Your task to perform on an android device: Show me popular videos on Youtube Image 0: 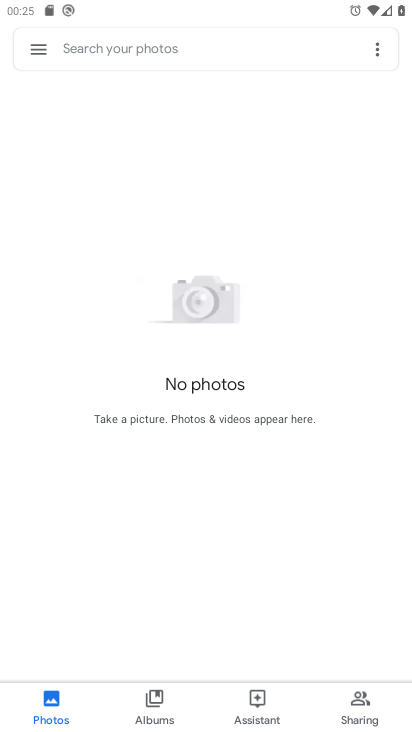
Step 0: press home button
Your task to perform on an android device: Show me popular videos on Youtube Image 1: 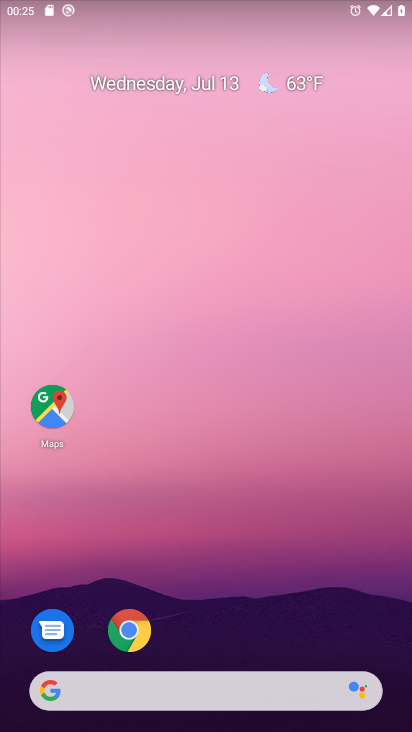
Step 1: drag from (203, 678) to (193, 277)
Your task to perform on an android device: Show me popular videos on Youtube Image 2: 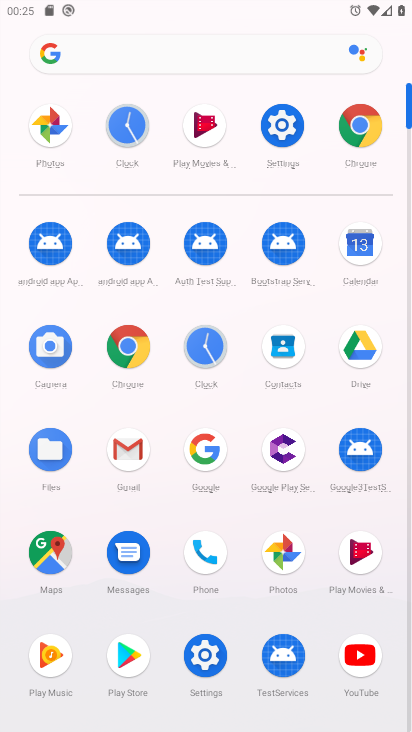
Step 2: click (353, 657)
Your task to perform on an android device: Show me popular videos on Youtube Image 3: 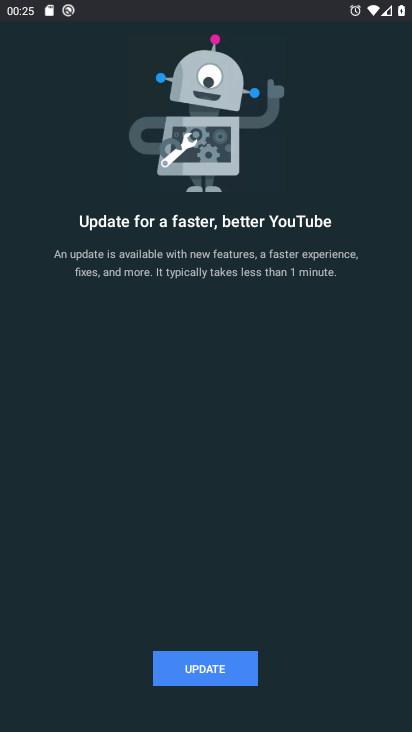
Step 3: click (216, 670)
Your task to perform on an android device: Show me popular videos on Youtube Image 4: 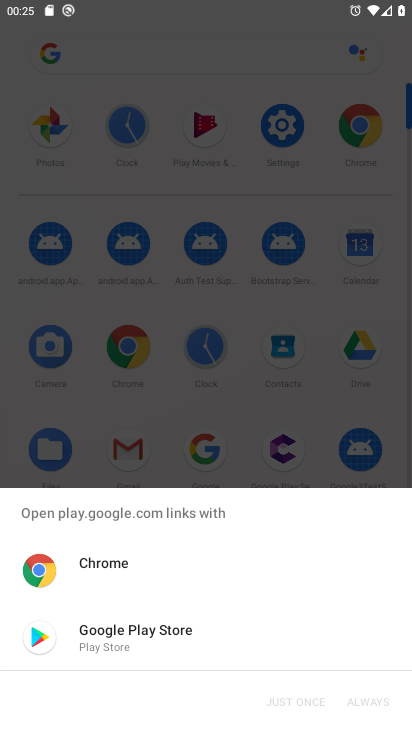
Step 4: click (218, 647)
Your task to perform on an android device: Show me popular videos on Youtube Image 5: 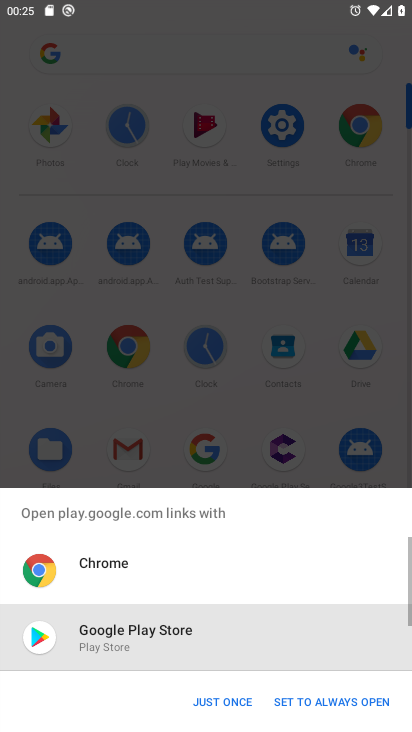
Step 5: click (232, 705)
Your task to perform on an android device: Show me popular videos on Youtube Image 6: 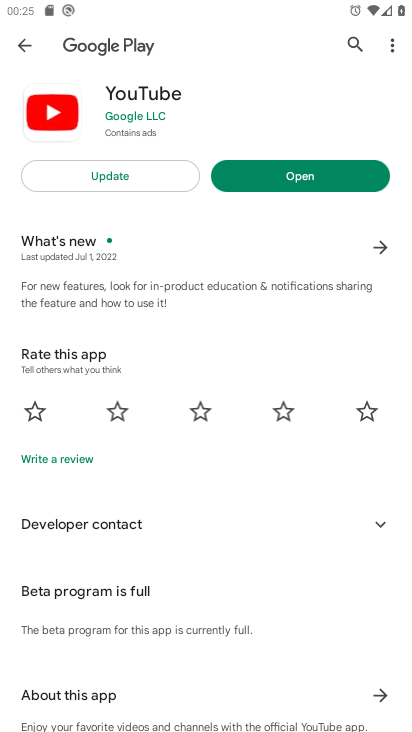
Step 6: click (149, 168)
Your task to perform on an android device: Show me popular videos on Youtube Image 7: 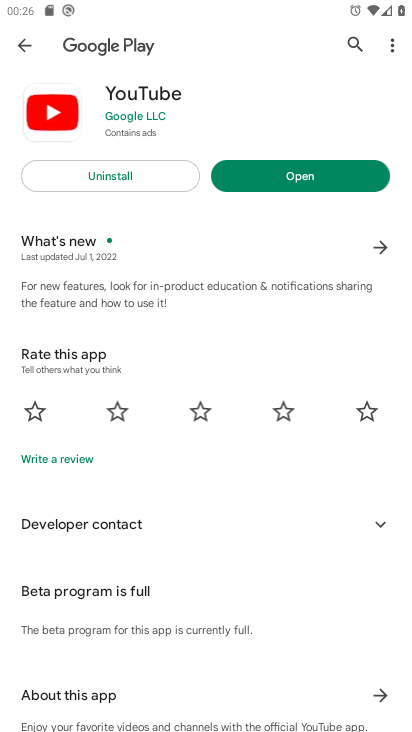
Step 7: click (279, 170)
Your task to perform on an android device: Show me popular videos on Youtube Image 8: 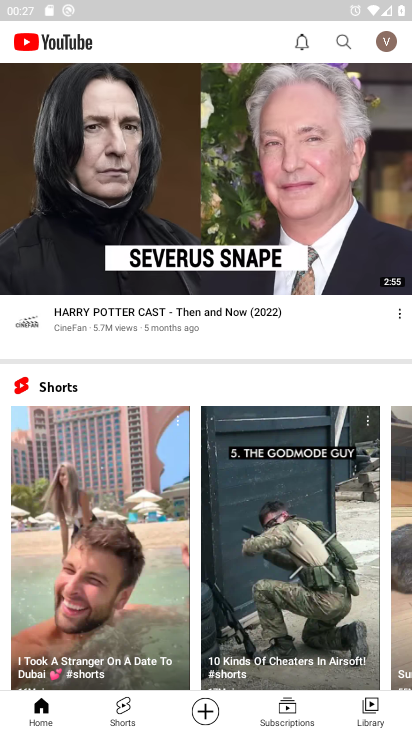
Step 8: drag from (130, 172) to (138, 419)
Your task to perform on an android device: Show me popular videos on Youtube Image 9: 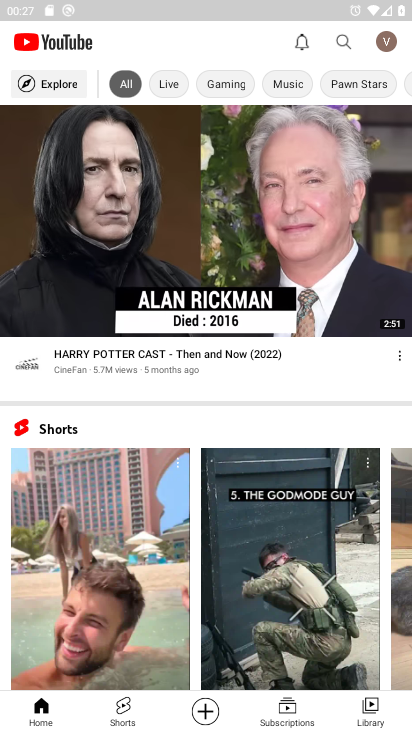
Step 9: click (52, 86)
Your task to perform on an android device: Show me popular videos on Youtube Image 10: 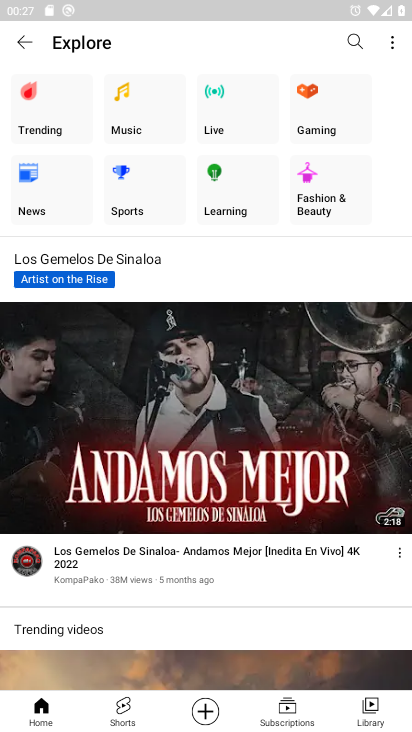
Step 10: click (46, 116)
Your task to perform on an android device: Show me popular videos on Youtube Image 11: 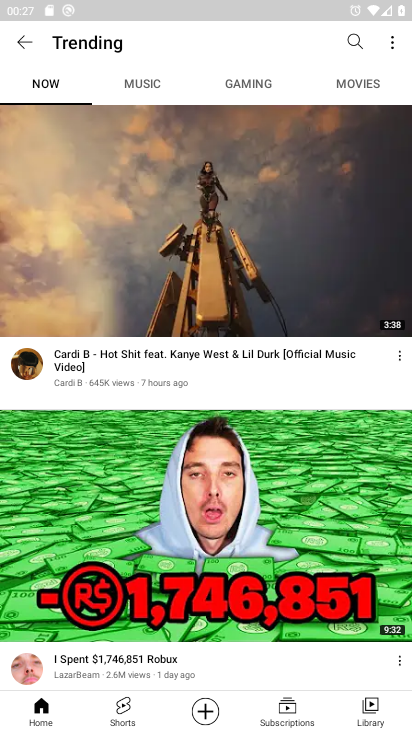
Step 11: task complete